Your task to perform on an android device: turn notification dots on Image 0: 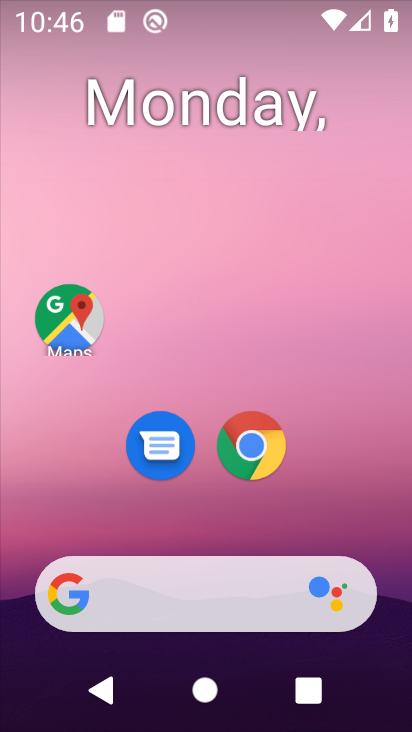
Step 0: drag from (199, 558) to (209, 236)
Your task to perform on an android device: turn notification dots on Image 1: 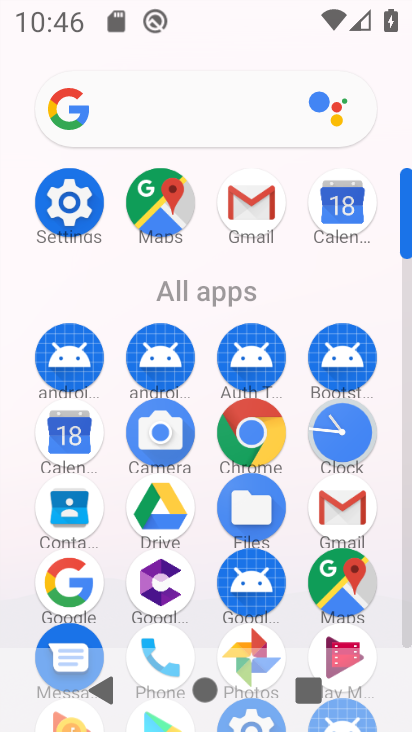
Step 1: click (81, 188)
Your task to perform on an android device: turn notification dots on Image 2: 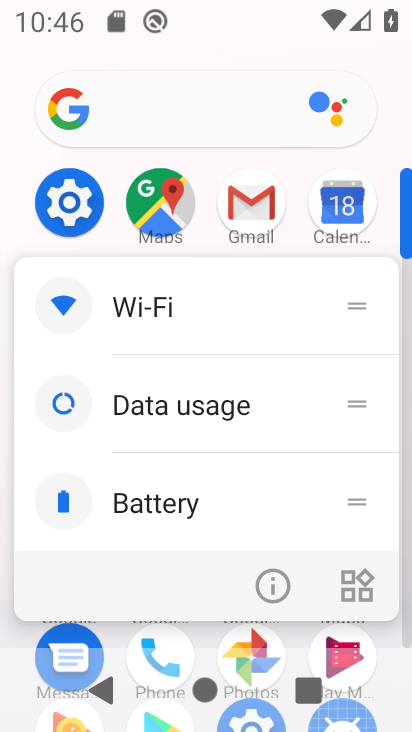
Step 2: click (80, 192)
Your task to perform on an android device: turn notification dots on Image 3: 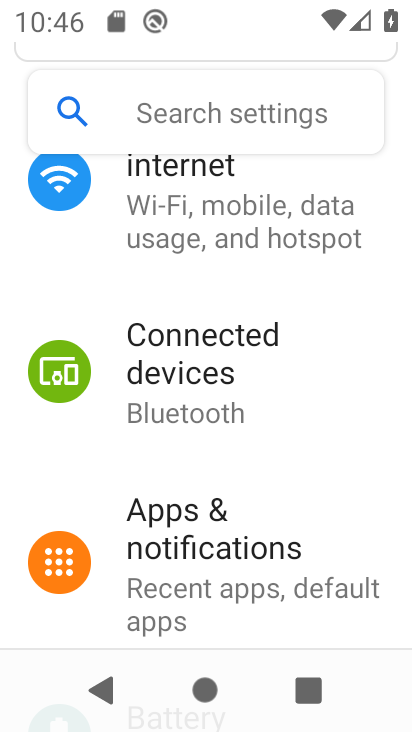
Step 3: click (199, 557)
Your task to perform on an android device: turn notification dots on Image 4: 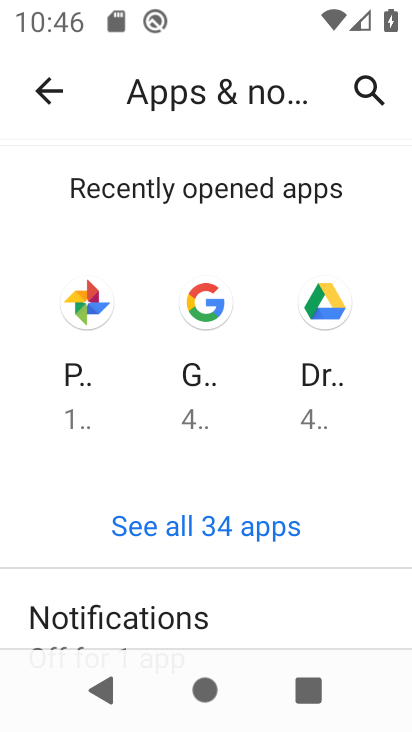
Step 4: drag from (245, 612) to (364, 246)
Your task to perform on an android device: turn notification dots on Image 5: 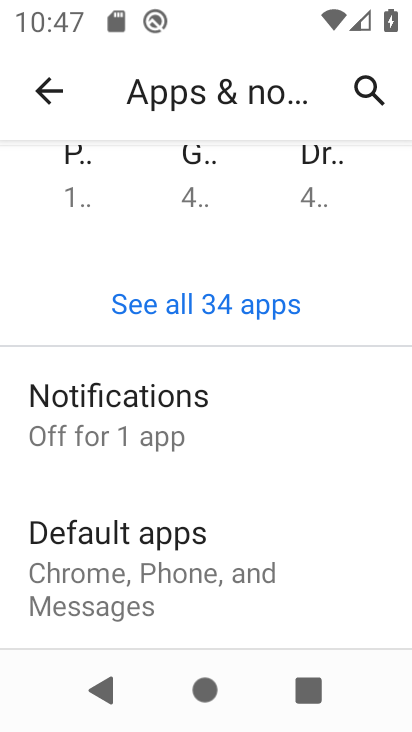
Step 5: click (103, 415)
Your task to perform on an android device: turn notification dots on Image 6: 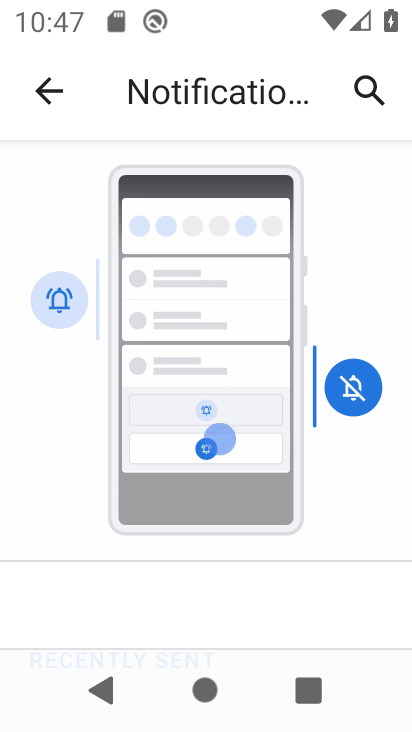
Step 6: drag from (334, 549) to (378, 147)
Your task to perform on an android device: turn notification dots on Image 7: 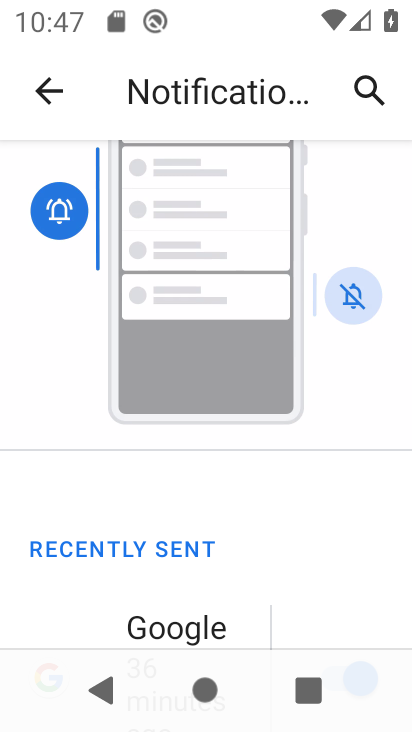
Step 7: drag from (232, 601) to (268, 261)
Your task to perform on an android device: turn notification dots on Image 8: 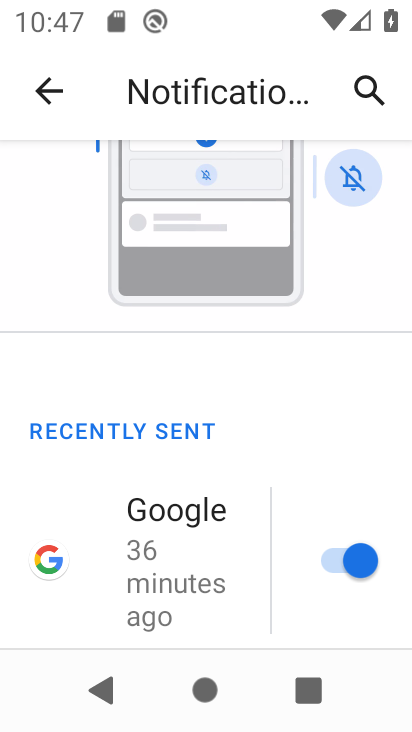
Step 8: drag from (260, 596) to (301, 369)
Your task to perform on an android device: turn notification dots on Image 9: 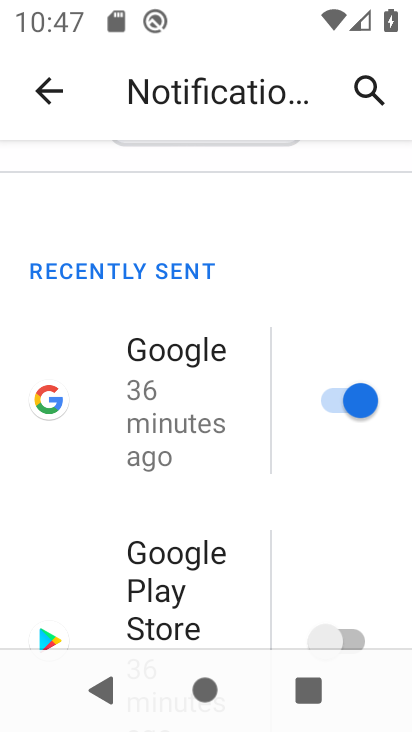
Step 9: drag from (210, 640) to (294, 285)
Your task to perform on an android device: turn notification dots on Image 10: 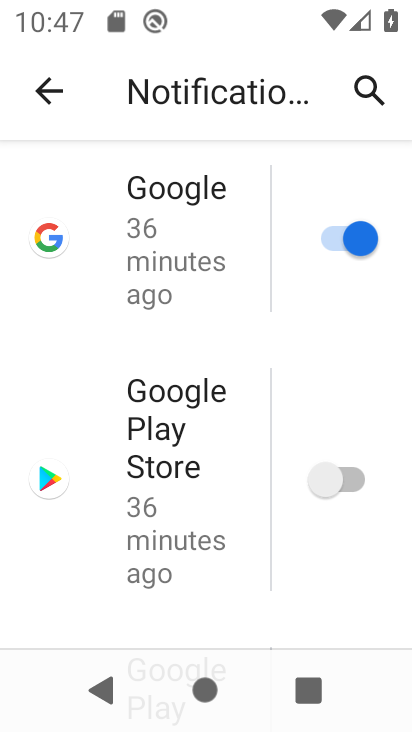
Step 10: drag from (189, 542) to (245, 220)
Your task to perform on an android device: turn notification dots on Image 11: 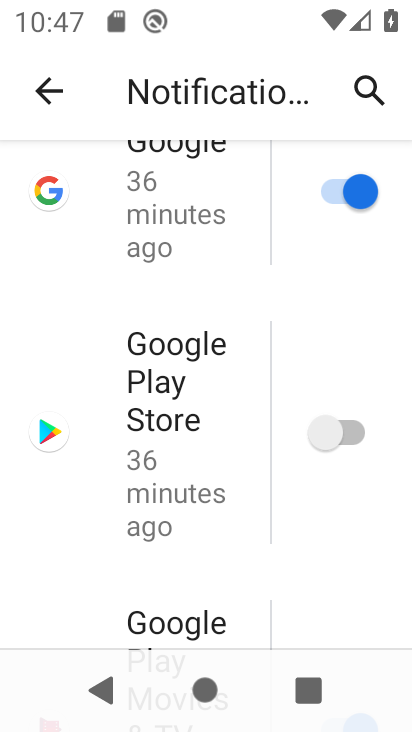
Step 11: drag from (207, 630) to (274, 264)
Your task to perform on an android device: turn notification dots on Image 12: 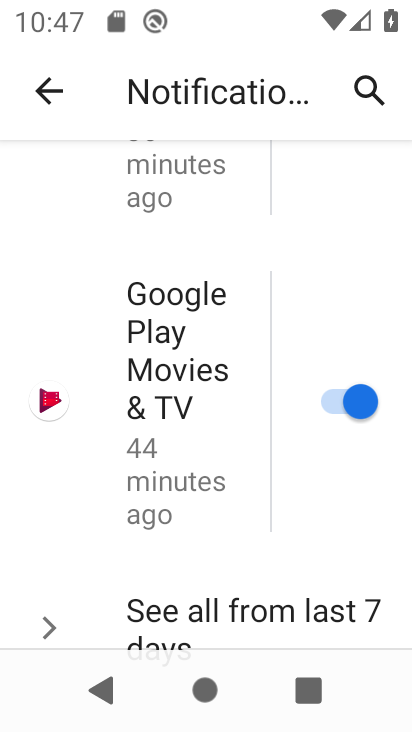
Step 12: drag from (229, 593) to (287, 295)
Your task to perform on an android device: turn notification dots on Image 13: 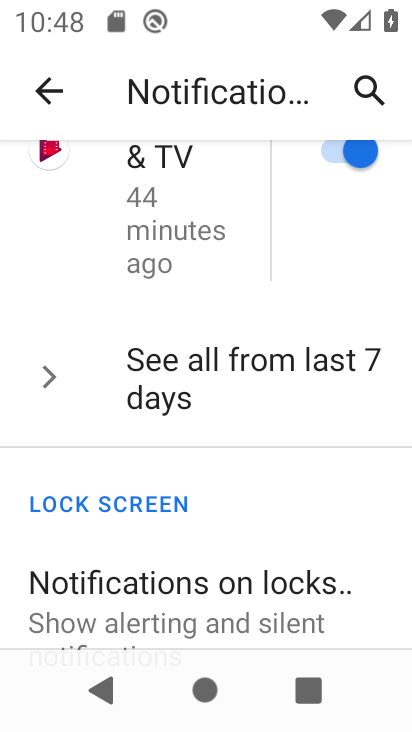
Step 13: drag from (210, 578) to (305, 311)
Your task to perform on an android device: turn notification dots on Image 14: 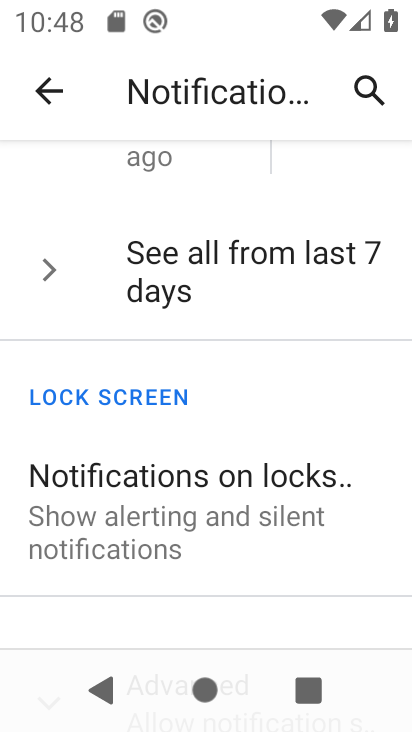
Step 14: drag from (193, 606) to (212, 237)
Your task to perform on an android device: turn notification dots on Image 15: 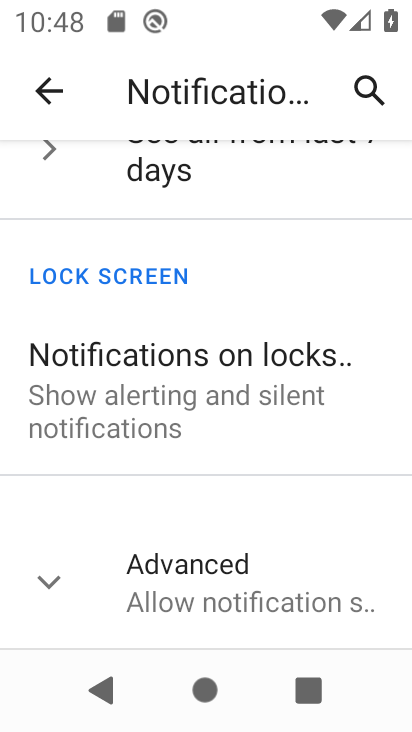
Step 15: click (187, 576)
Your task to perform on an android device: turn notification dots on Image 16: 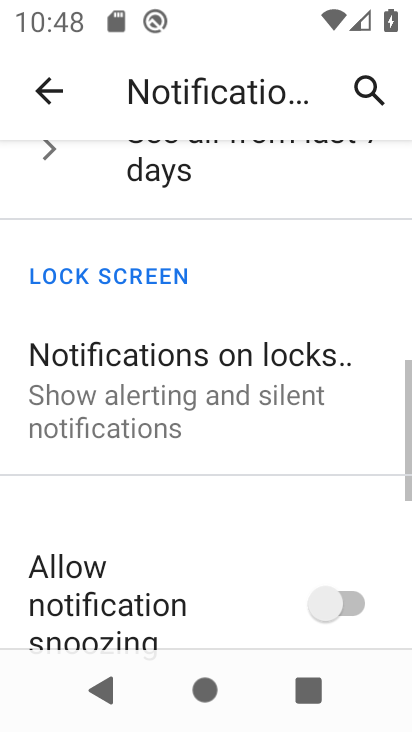
Step 16: task complete